Your task to perform on an android device: turn off smart reply in the gmail app Image 0: 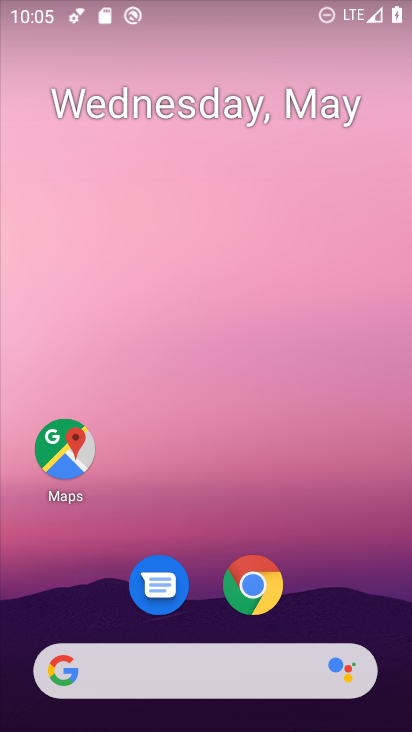
Step 0: drag from (329, 529) to (331, 107)
Your task to perform on an android device: turn off smart reply in the gmail app Image 1: 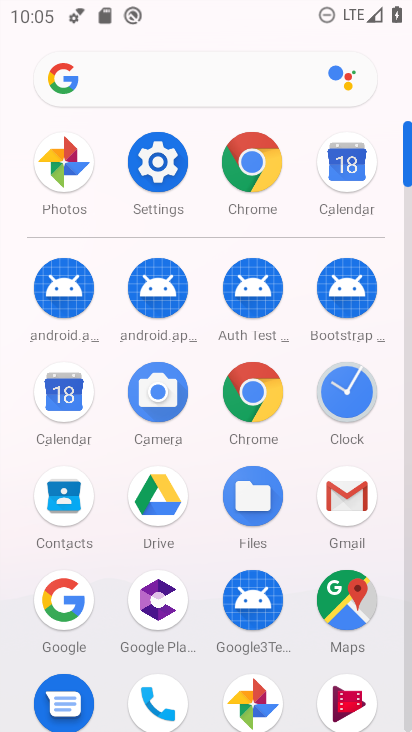
Step 1: click (346, 497)
Your task to perform on an android device: turn off smart reply in the gmail app Image 2: 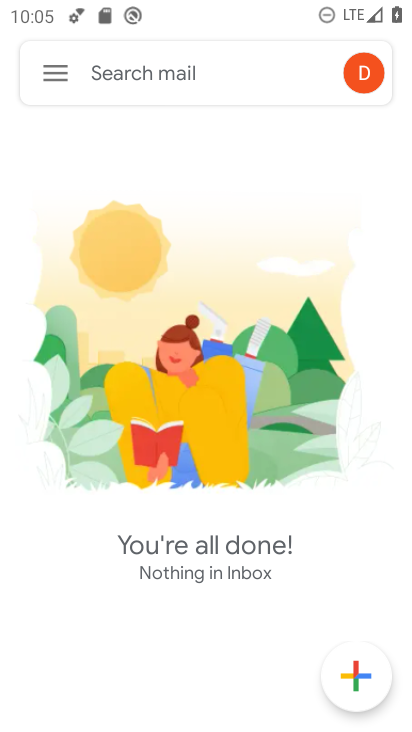
Step 2: click (58, 65)
Your task to perform on an android device: turn off smart reply in the gmail app Image 3: 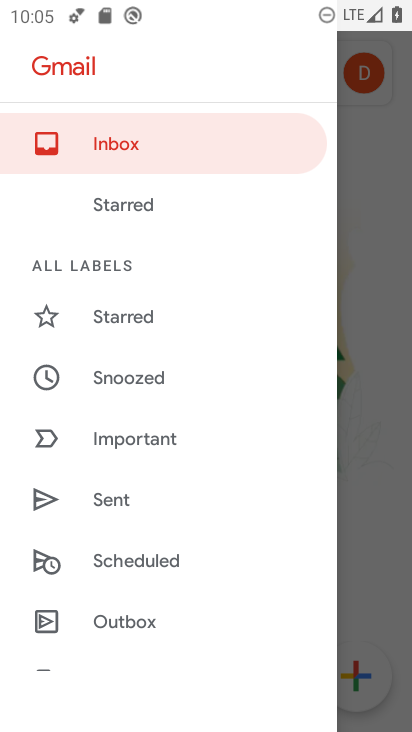
Step 3: drag from (191, 494) to (179, 201)
Your task to perform on an android device: turn off smart reply in the gmail app Image 4: 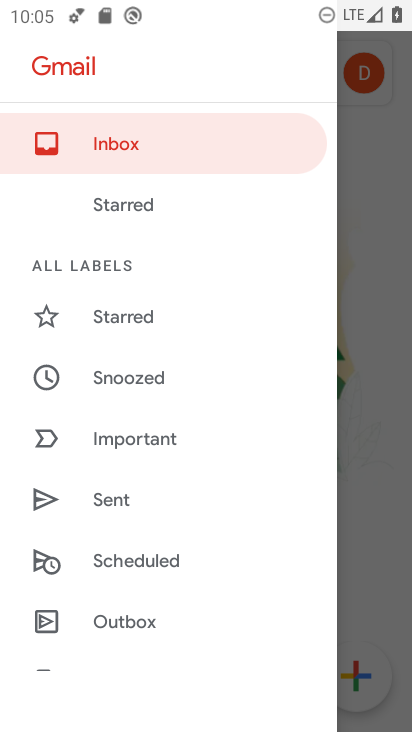
Step 4: drag from (153, 576) to (212, 21)
Your task to perform on an android device: turn off smart reply in the gmail app Image 5: 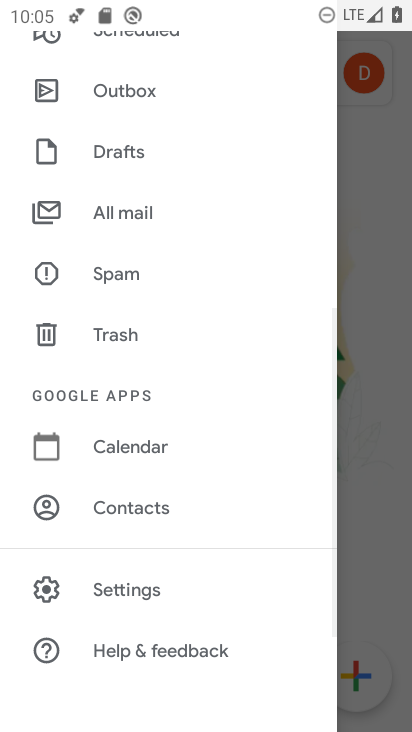
Step 5: click (120, 580)
Your task to perform on an android device: turn off smart reply in the gmail app Image 6: 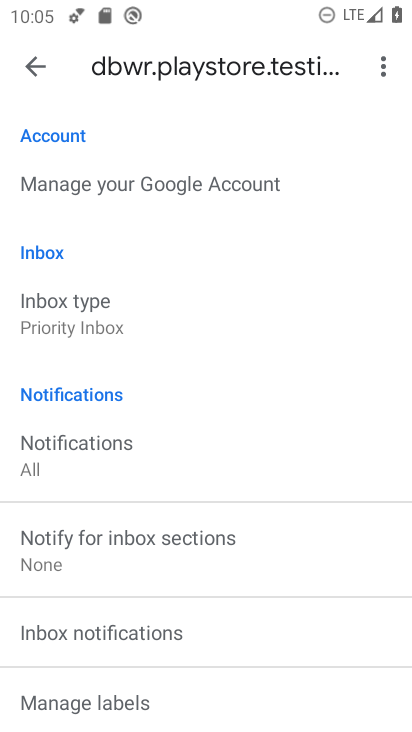
Step 6: drag from (204, 563) to (218, 177)
Your task to perform on an android device: turn off smart reply in the gmail app Image 7: 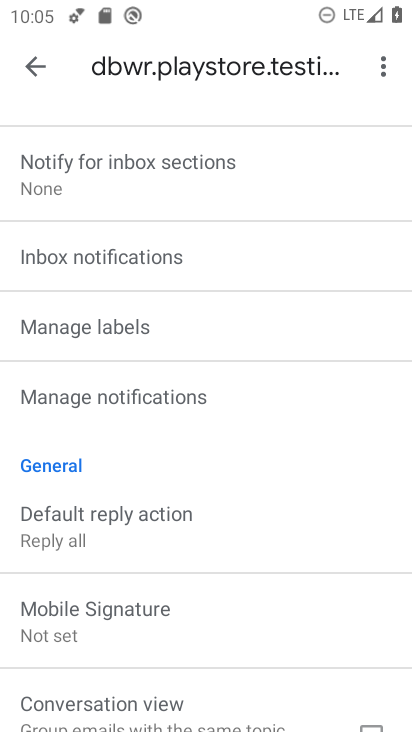
Step 7: drag from (221, 585) to (224, 244)
Your task to perform on an android device: turn off smart reply in the gmail app Image 8: 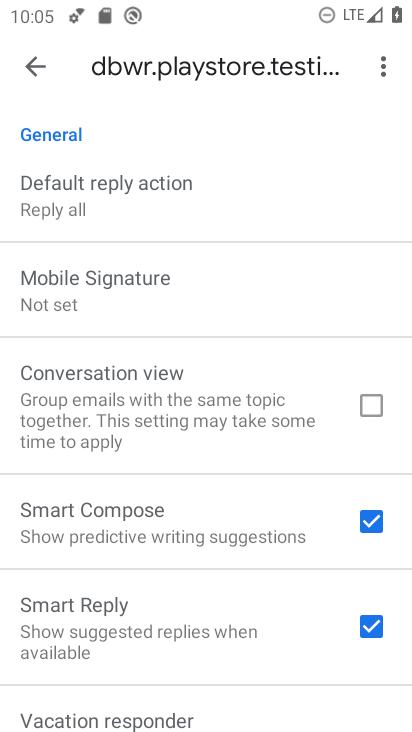
Step 8: click (378, 630)
Your task to perform on an android device: turn off smart reply in the gmail app Image 9: 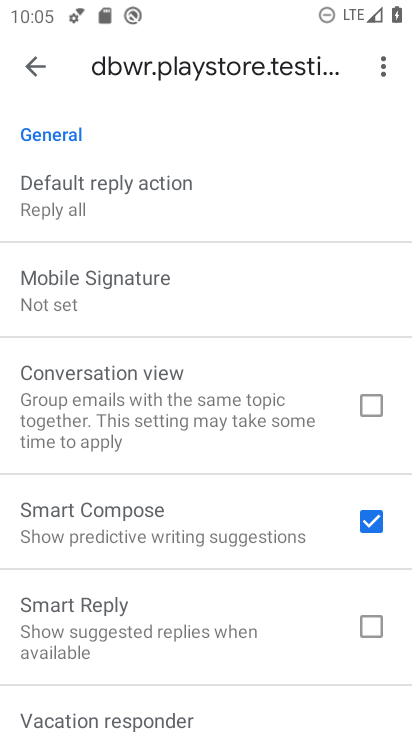
Step 9: task complete